Your task to perform on an android device: Search for the new iphone 13 pro on Etsy. Image 0: 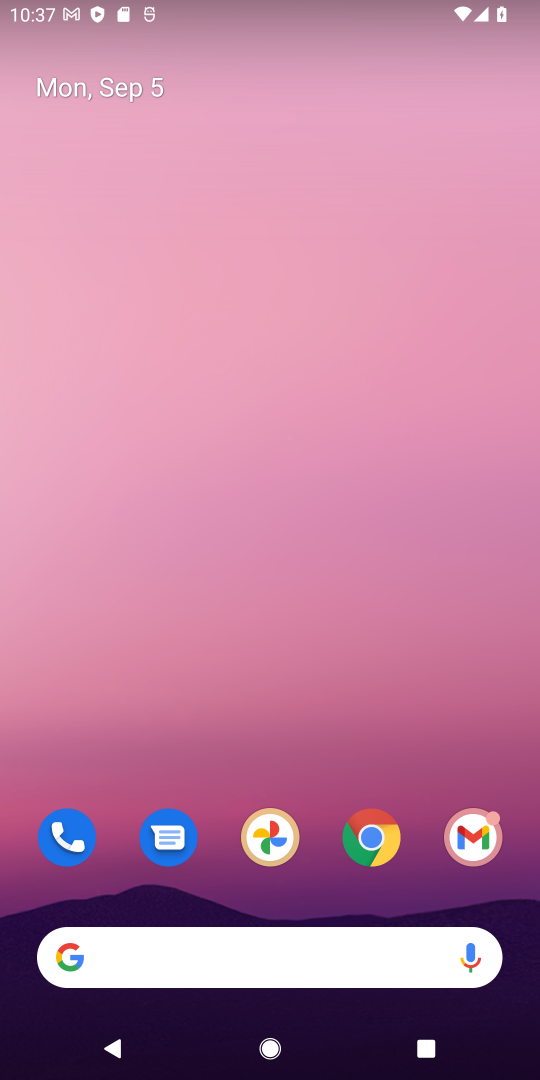
Step 0: drag from (322, 859) to (299, 37)
Your task to perform on an android device: Search for the new iphone 13 pro on Etsy. Image 1: 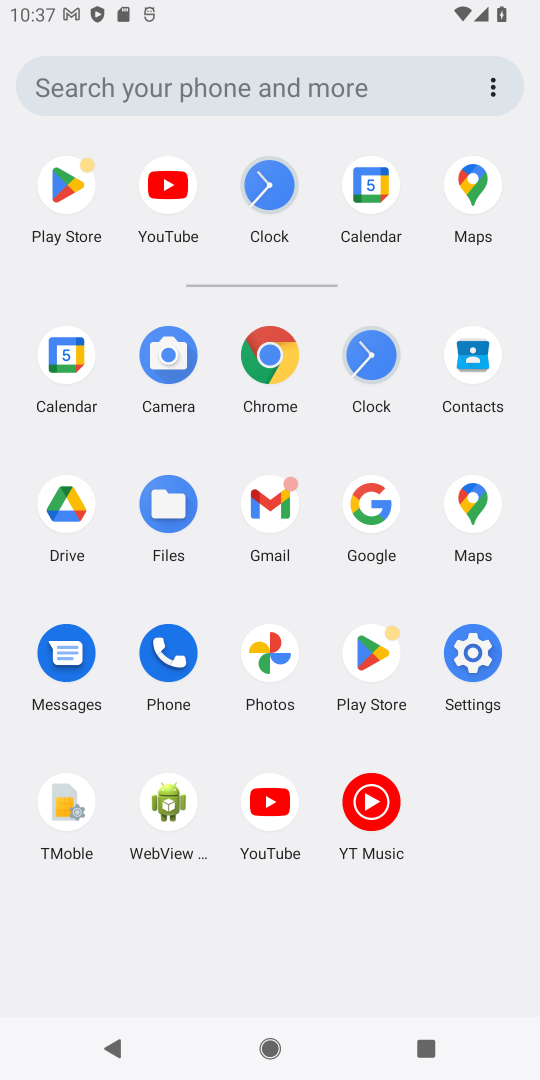
Step 1: click (267, 357)
Your task to perform on an android device: Search for the new iphone 13 pro on Etsy. Image 2: 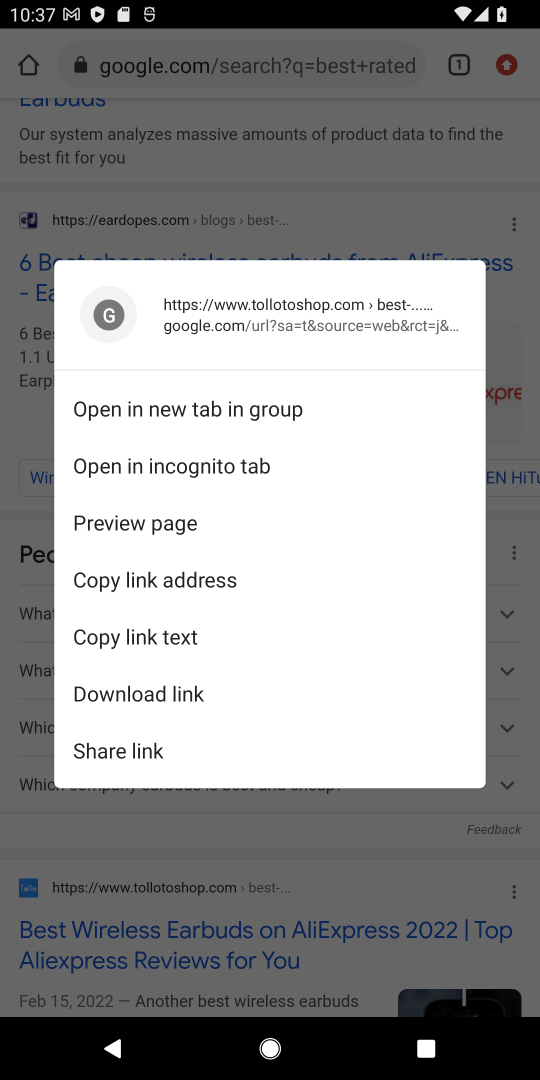
Step 2: click (292, 906)
Your task to perform on an android device: Search for the new iphone 13 pro on Etsy. Image 3: 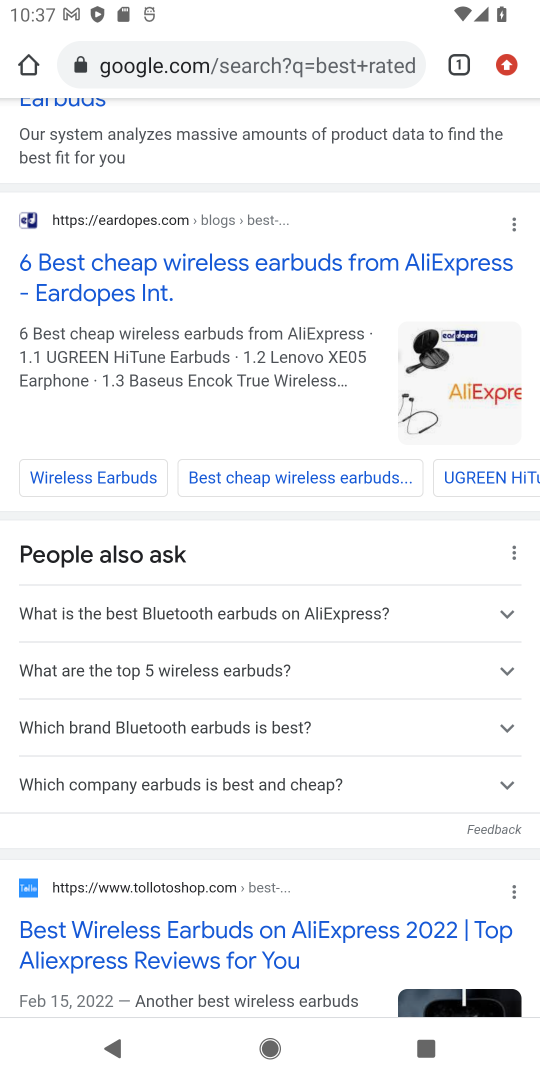
Step 3: click (338, 49)
Your task to perform on an android device: Search for the new iphone 13 pro on Etsy. Image 4: 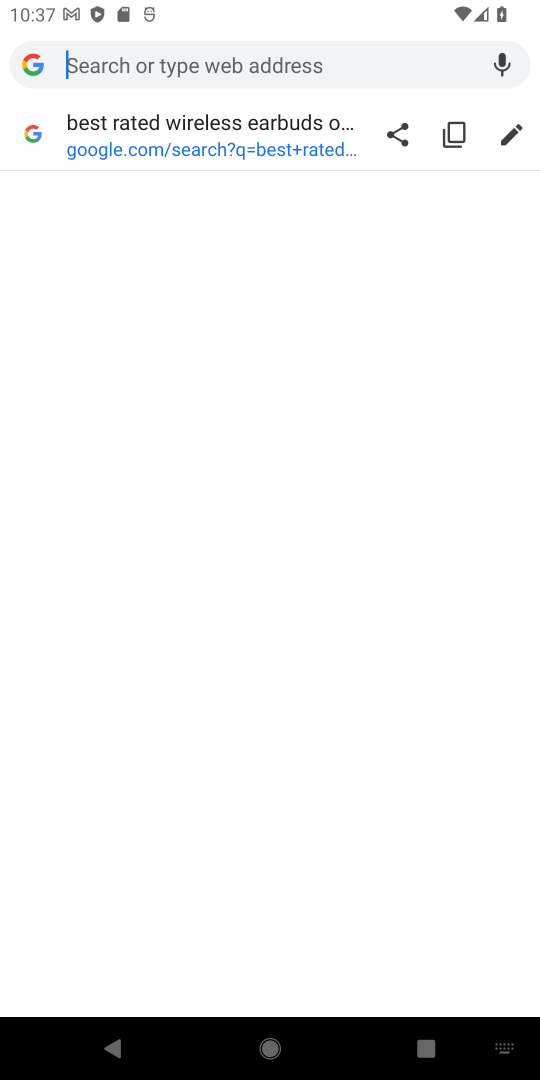
Step 4: type "the new iphone 13 pro on Etsy"
Your task to perform on an android device: Search for the new iphone 13 pro on Etsy. Image 5: 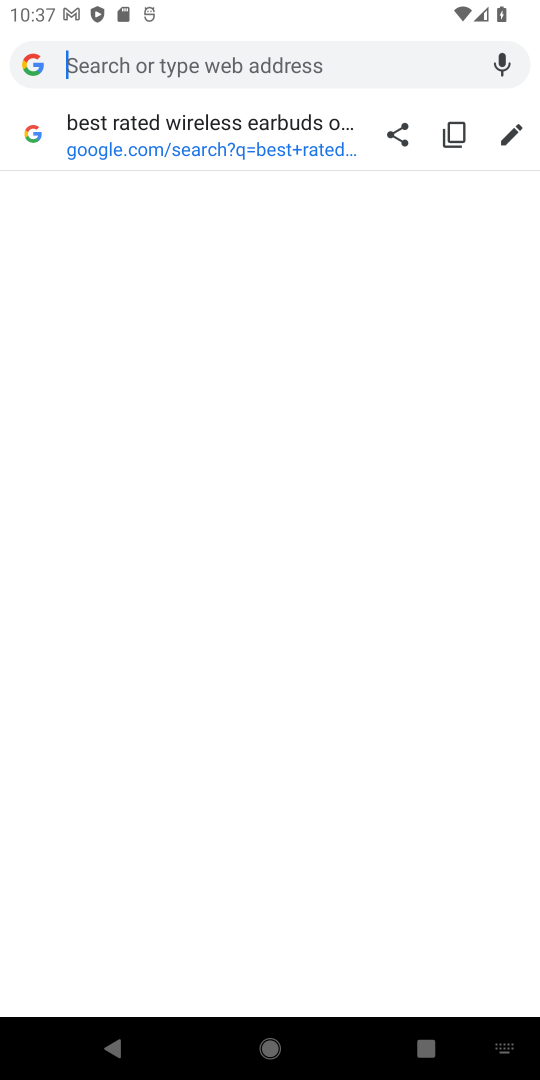
Step 5: click (201, 131)
Your task to perform on an android device: Search for the new iphone 13 pro on Etsy. Image 6: 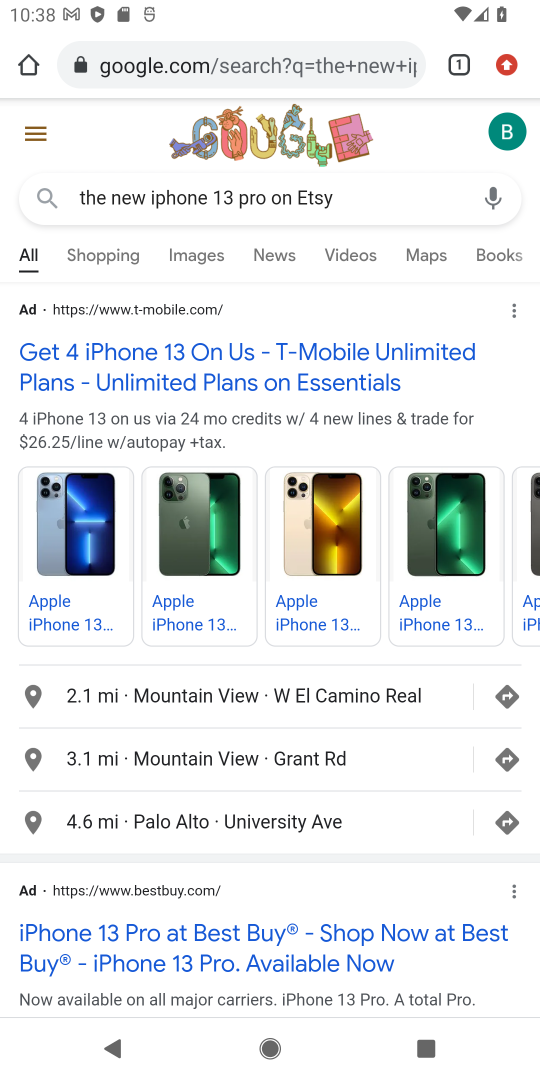
Step 6: drag from (293, 838) to (227, 300)
Your task to perform on an android device: Search for the new iphone 13 pro on Etsy. Image 7: 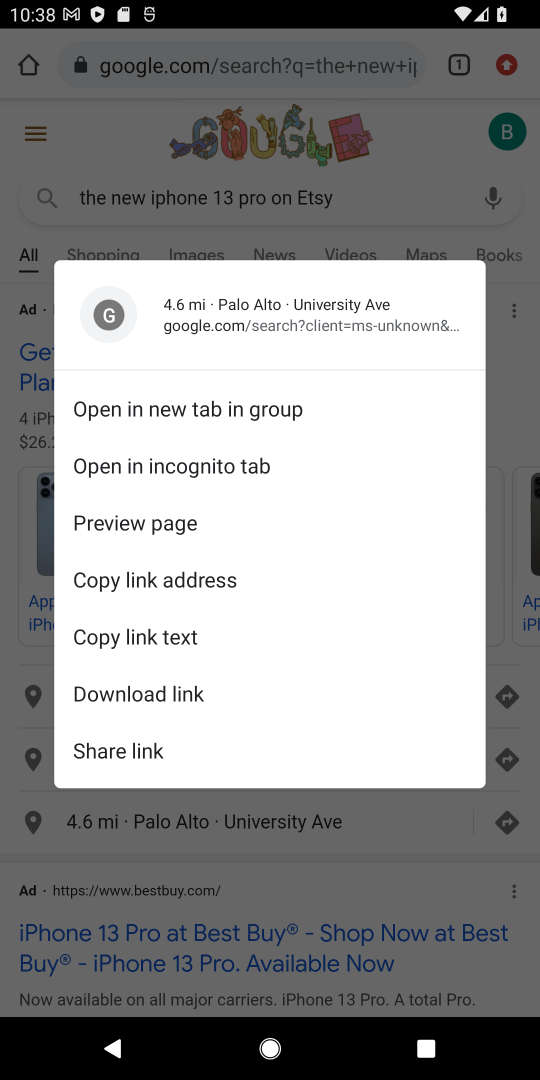
Step 7: click (274, 873)
Your task to perform on an android device: Search for the new iphone 13 pro on Etsy. Image 8: 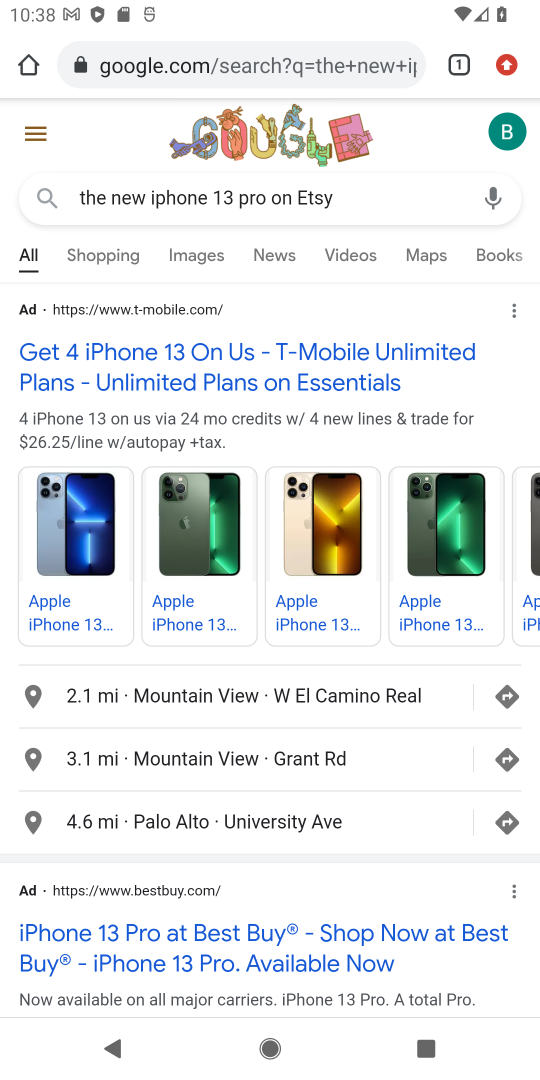
Step 8: drag from (291, 877) to (271, 516)
Your task to perform on an android device: Search for the new iphone 13 pro on Etsy. Image 9: 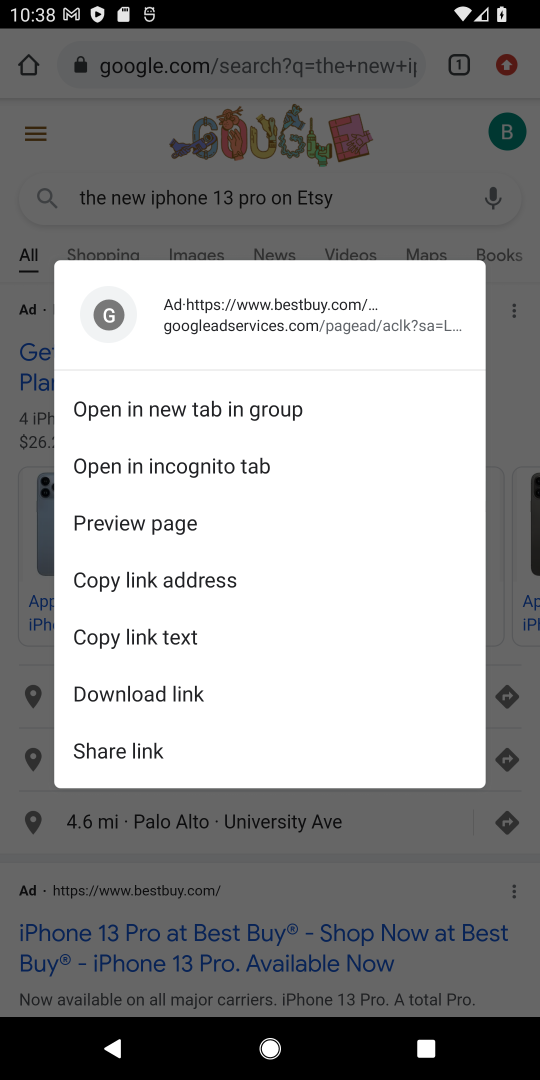
Step 9: click (266, 950)
Your task to perform on an android device: Search for the new iphone 13 pro on Etsy. Image 10: 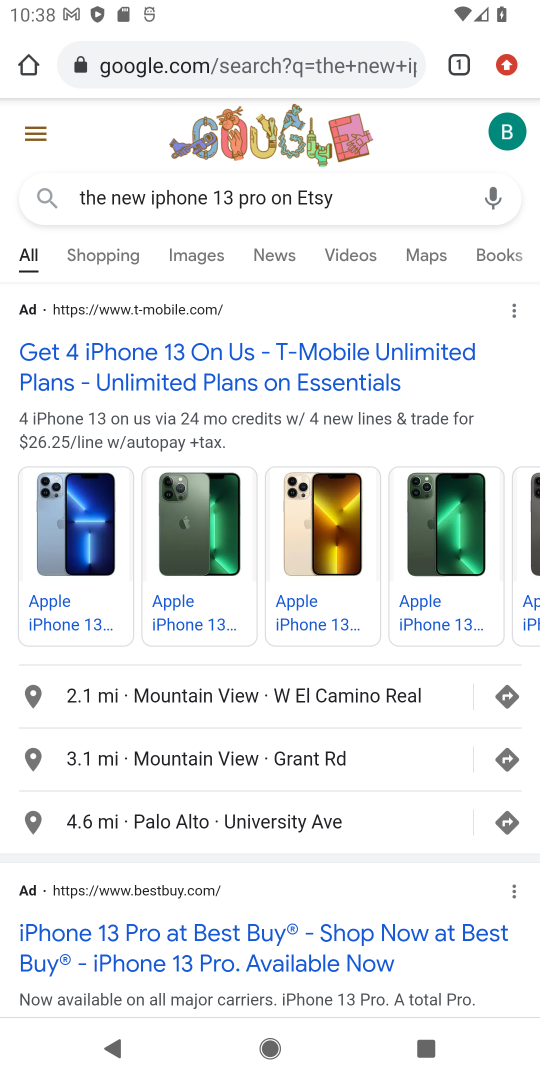
Step 10: drag from (397, 866) to (344, 573)
Your task to perform on an android device: Search for the new iphone 13 pro on Etsy. Image 11: 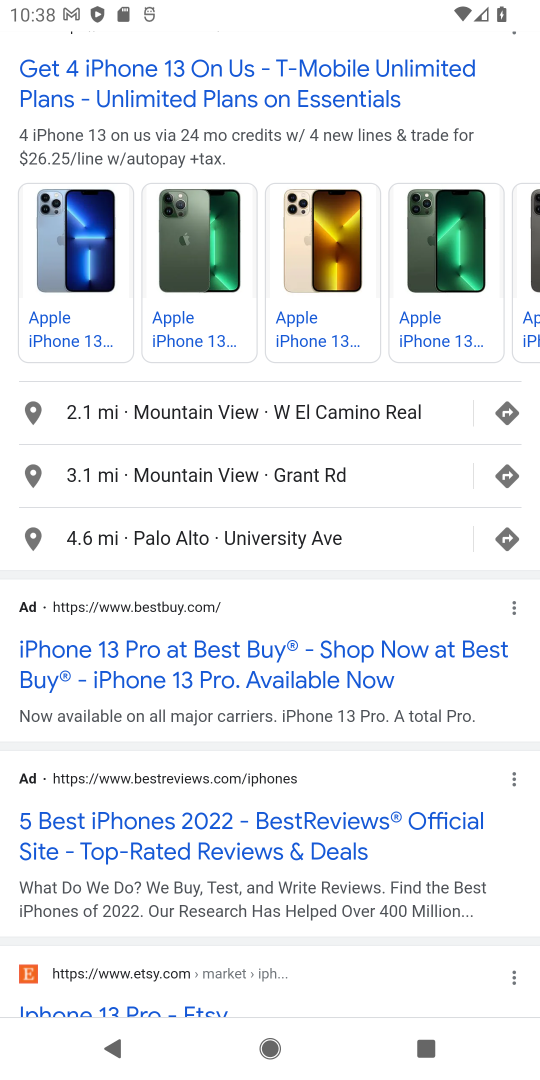
Step 11: drag from (211, 369) to (239, 899)
Your task to perform on an android device: Search for the new iphone 13 pro on Etsy. Image 12: 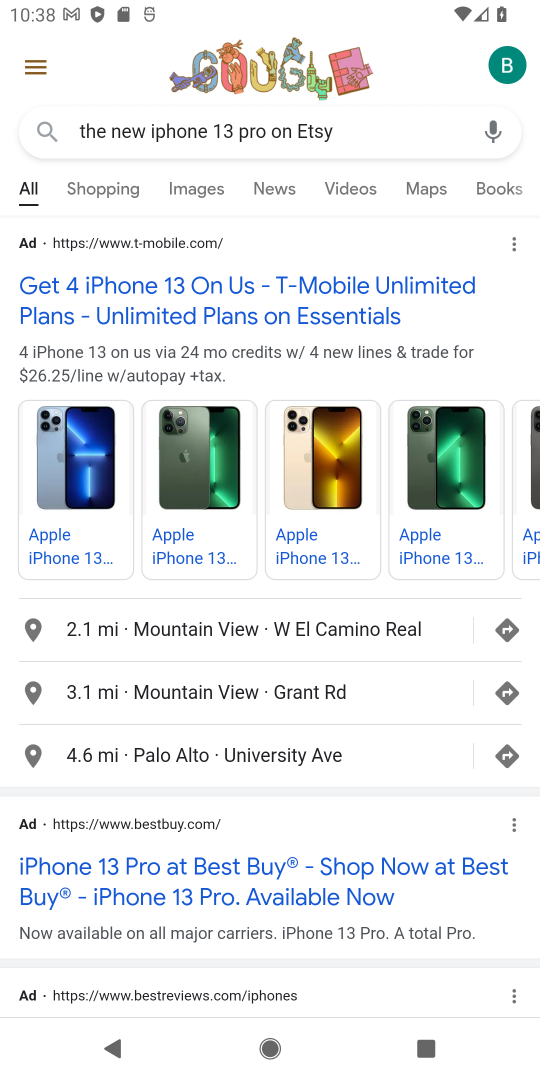
Step 12: drag from (262, 940) to (395, 74)
Your task to perform on an android device: Search for the new iphone 13 pro on Etsy. Image 13: 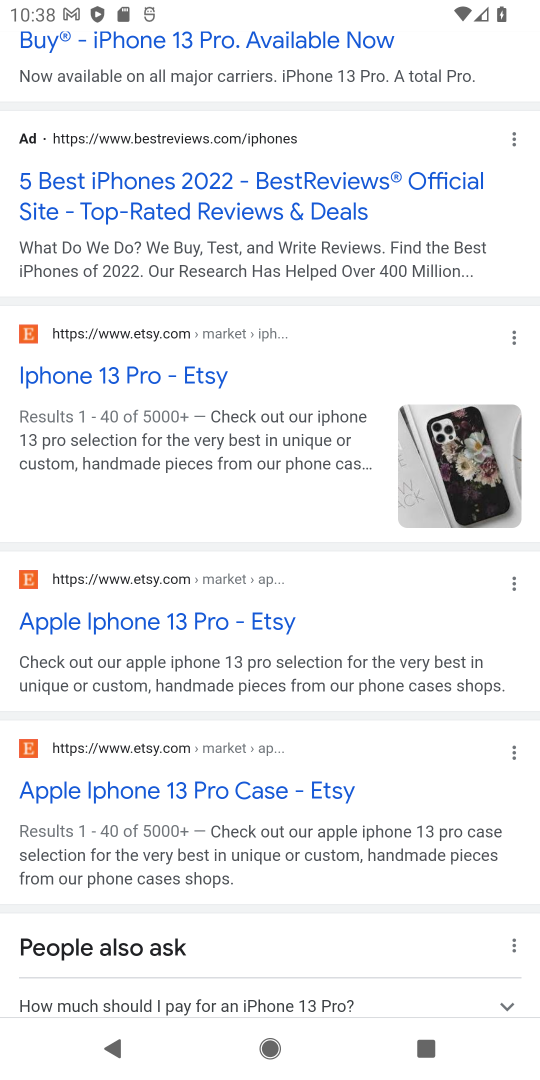
Step 13: click (249, 624)
Your task to perform on an android device: Search for the new iphone 13 pro on Etsy. Image 14: 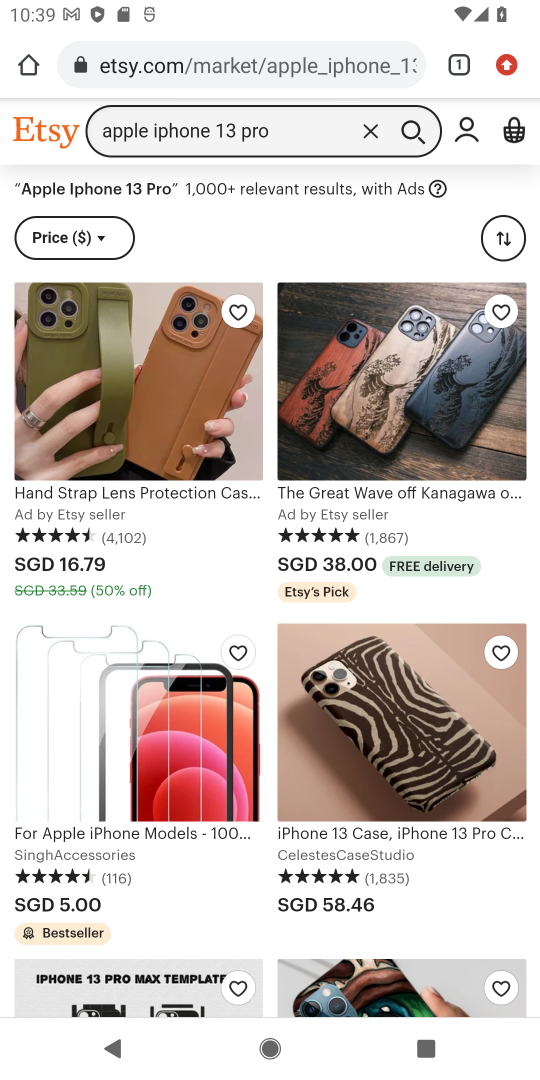
Step 14: drag from (275, 867) to (308, 350)
Your task to perform on an android device: Search for the new iphone 13 pro on Etsy. Image 15: 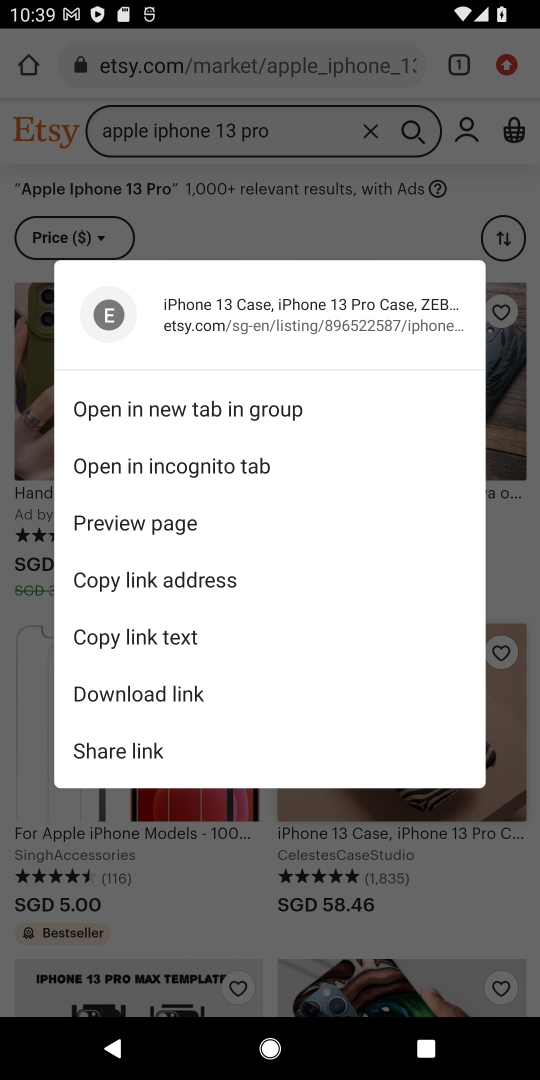
Step 15: click (267, 861)
Your task to perform on an android device: Search for the new iphone 13 pro on Etsy. Image 16: 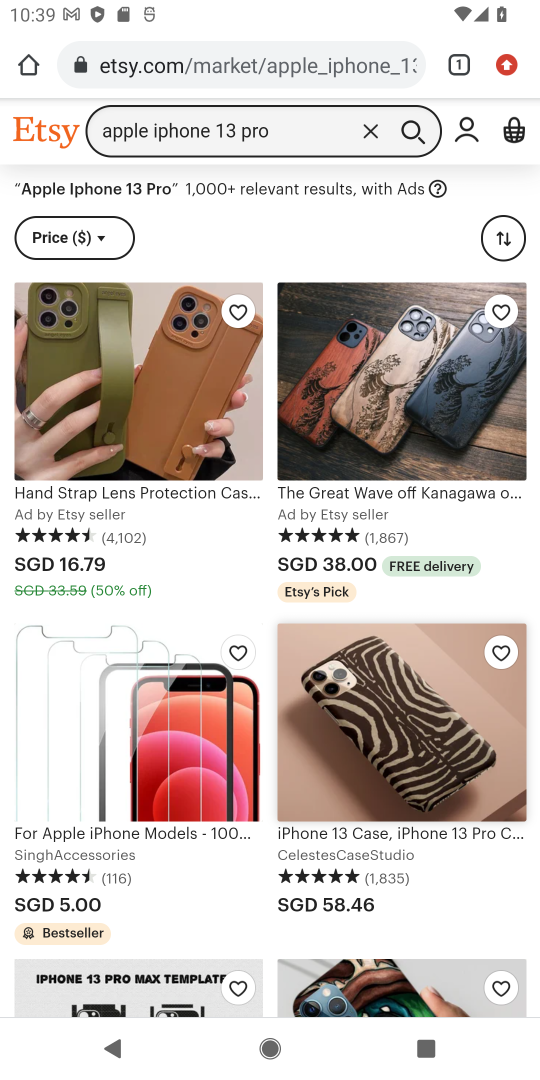
Step 16: task complete